Your task to perform on an android device: open app "Google Find My Device" (install if not already installed) Image 0: 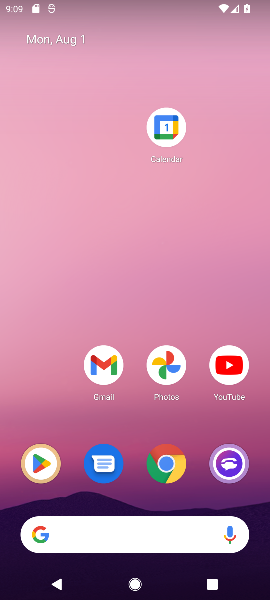
Step 0: click (132, 524)
Your task to perform on an android device: open app "Google Find My Device" (install if not already installed) Image 1: 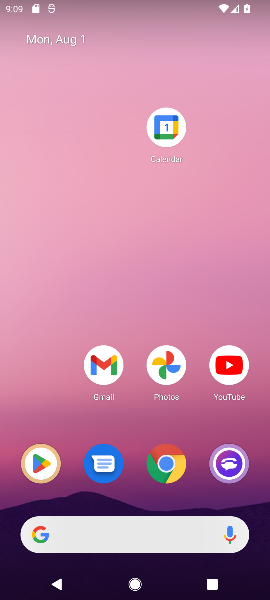
Step 1: click (132, 524)
Your task to perform on an android device: open app "Google Find My Device" (install if not already installed) Image 2: 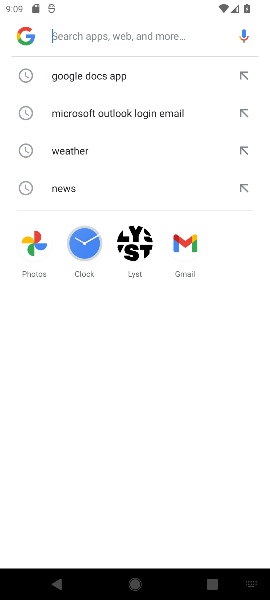
Step 2: type "google.com"
Your task to perform on an android device: open app "Google Find My Device" (install if not already installed) Image 3: 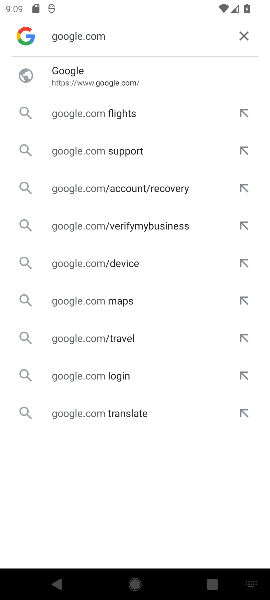
Step 3: click (158, 83)
Your task to perform on an android device: open app "Google Find My Device" (install if not already installed) Image 4: 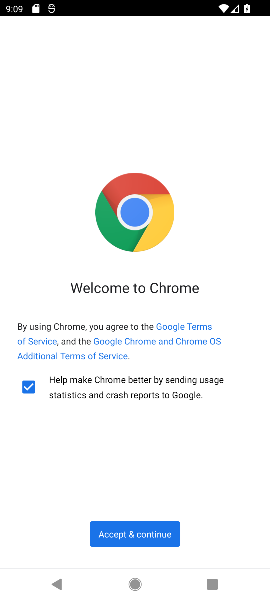
Step 4: click (146, 526)
Your task to perform on an android device: open app "Google Find My Device" (install if not already installed) Image 5: 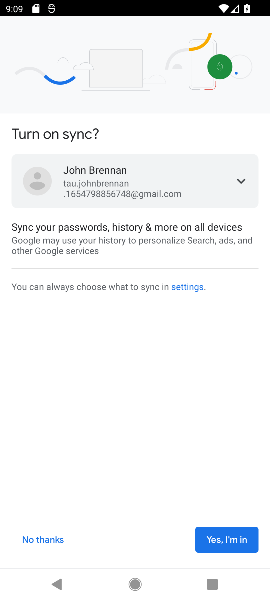
Step 5: click (146, 526)
Your task to perform on an android device: open app "Google Find My Device" (install if not already installed) Image 6: 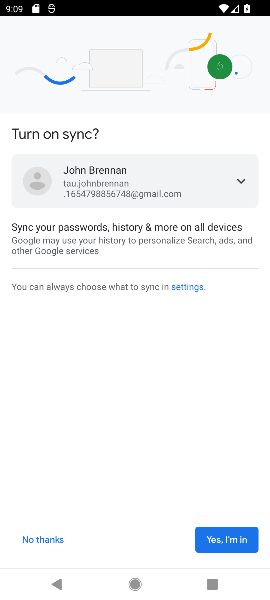
Step 6: click (244, 539)
Your task to perform on an android device: open app "Google Find My Device" (install if not already installed) Image 7: 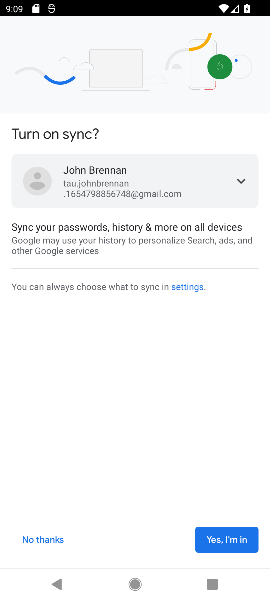
Step 7: click (244, 539)
Your task to perform on an android device: open app "Google Find My Device" (install if not already installed) Image 8: 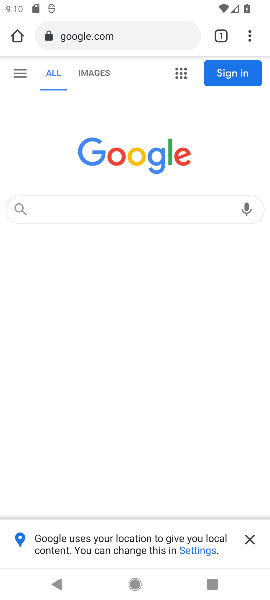
Step 8: press home button
Your task to perform on an android device: open app "Google Find My Device" (install if not already installed) Image 9: 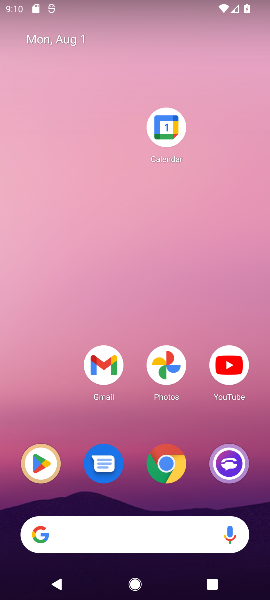
Step 9: click (160, 467)
Your task to perform on an android device: open app "Google Find My Device" (install if not already installed) Image 10: 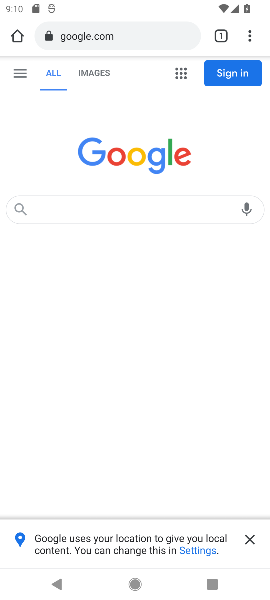
Step 10: click (118, 38)
Your task to perform on an android device: open app "Google Find My Device" (install if not already installed) Image 11: 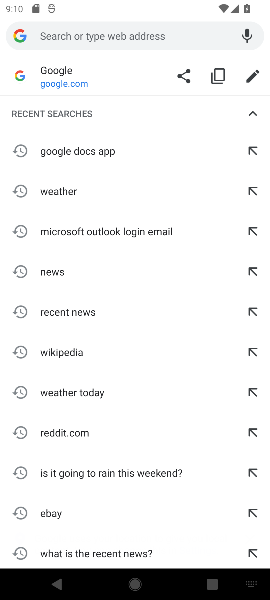
Step 11: press home button
Your task to perform on an android device: open app "Google Find My Device" (install if not already installed) Image 12: 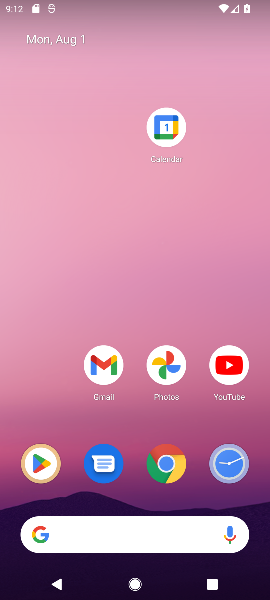
Step 12: drag from (80, 502) to (141, 70)
Your task to perform on an android device: open app "Google Find My Device" (install if not already installed) Image 13: 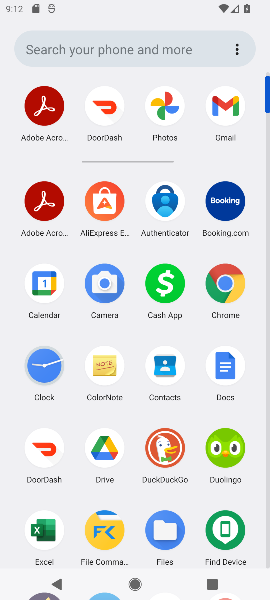
Step 13: click (229, 542)
Your task to perform on an android device: open app "Google Find My Device" (install if not already installed) Image 14: 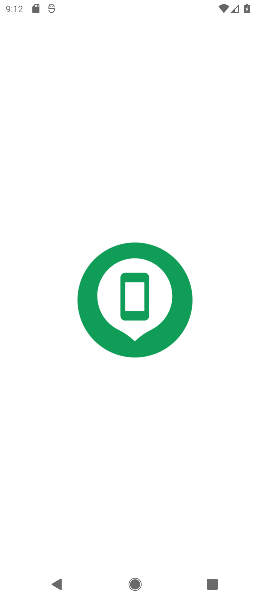
Step 14: task complete